Your task to perform on an android device: Is it going to rain tomorrow? Image 0: 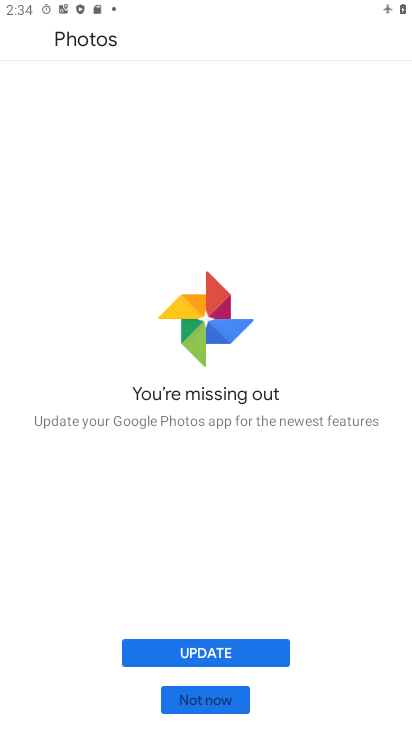
Step 0: click (213, 654)
Your task to perform on an android device: Is it going to rain tomorrow? Image 1: 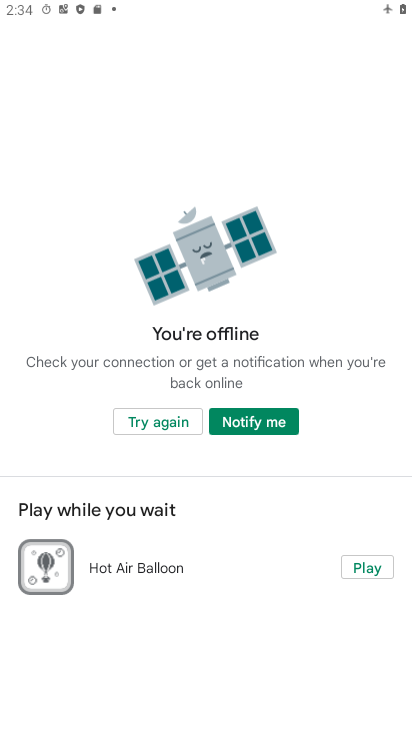
Step 1: press home button
Your task to perform on an android device: Is it going to rain tomorrow? Image 2: 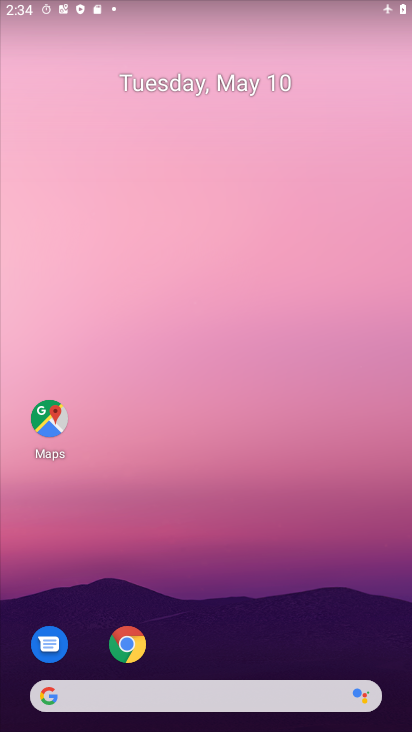
Step 2: drag from (169, 632) to (185, 216)
Your task to perform on an android device: Is it going to rain tomorrow? Image 3: 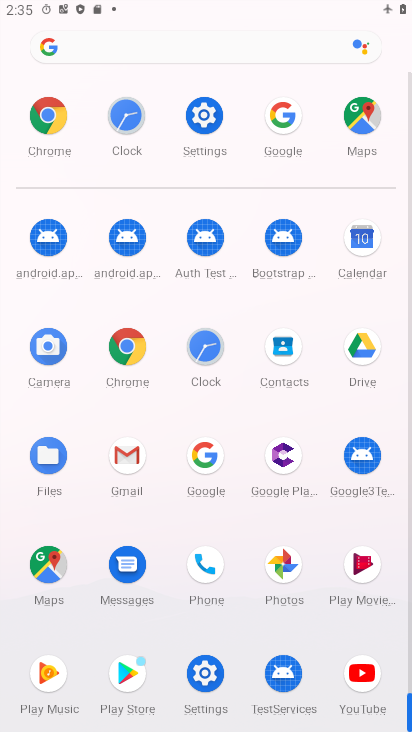
Step 3: click (197, 463)
Your task to perform on an android device: Is it going to rain tomorrow? Image 4: 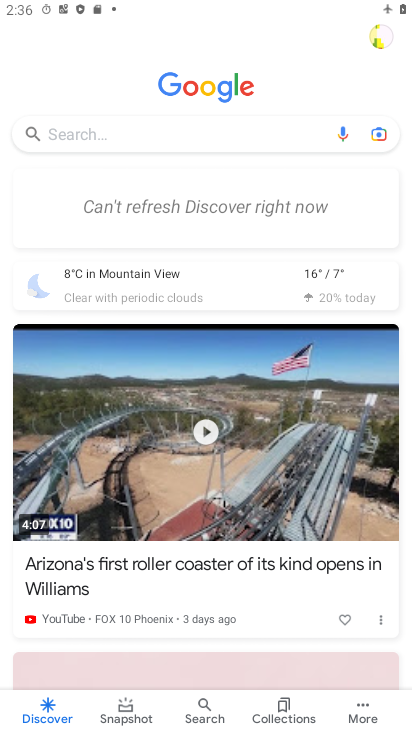
Step 4: task complete